Your task to perform on an android device: install app "Move to iOS" Image 0: 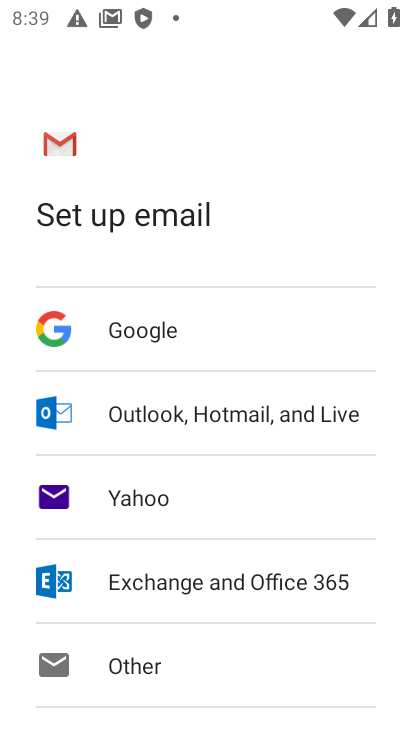
Step 0: press home button
Your task to perform on an android device: install app "Move to iOS" Image 1: 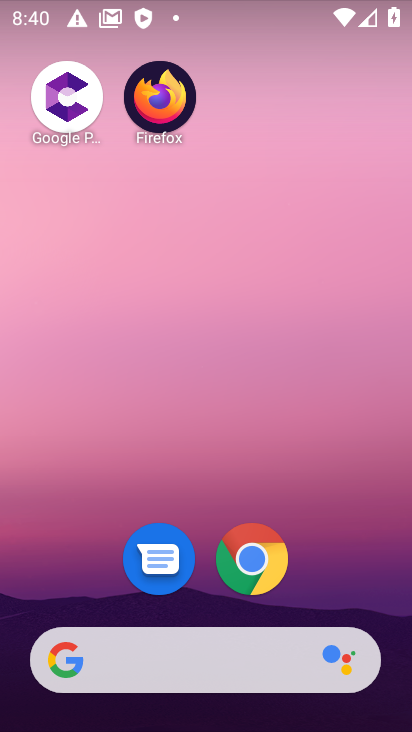
Step 1: drag from (330, 609) to (304, 4)
Your task to perform on an android device: install app "Move to iOS" Image 2: 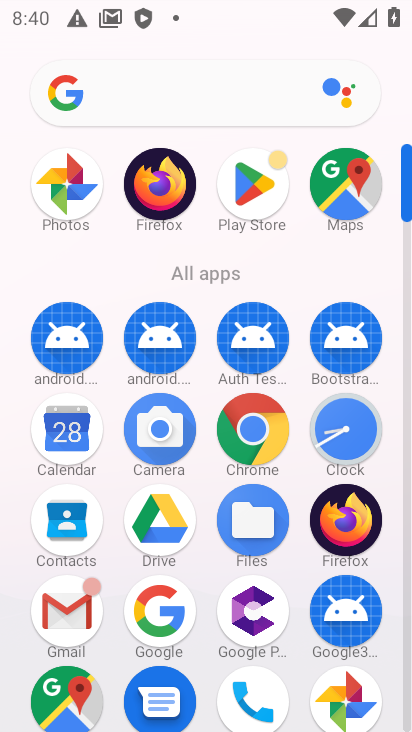
Step 2: click (257, 184)
Your task to perform on an android device: install app "Move to iOS" Image 3: 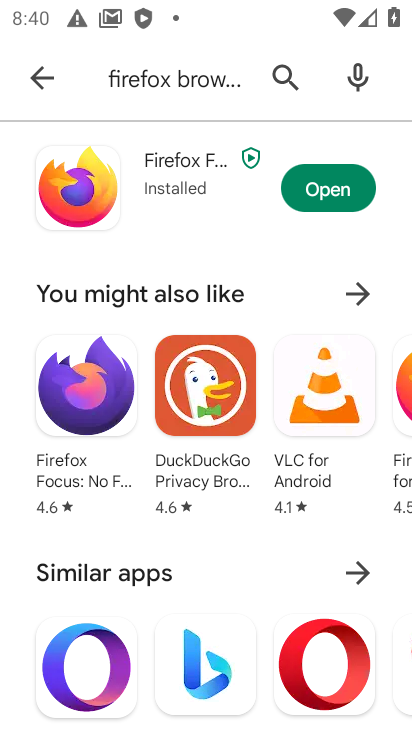
Step 3: click (289, 84)
Your task to perform on an android device: install app "Move to iOS" Image 4: 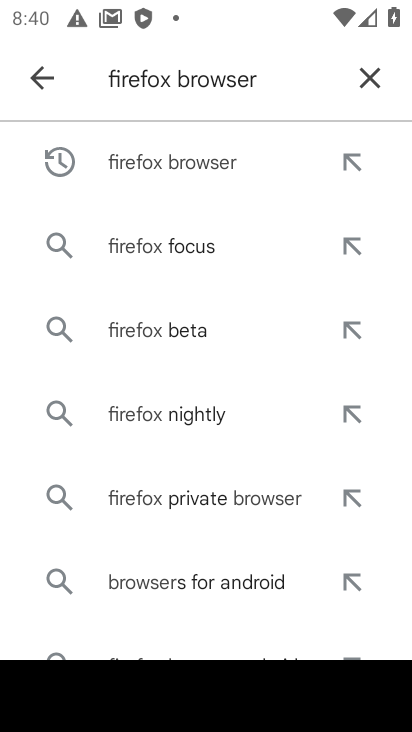
Step 4: click (367, 84)
Your task to perform on an android device: install app "Move to iOS" Image 5: 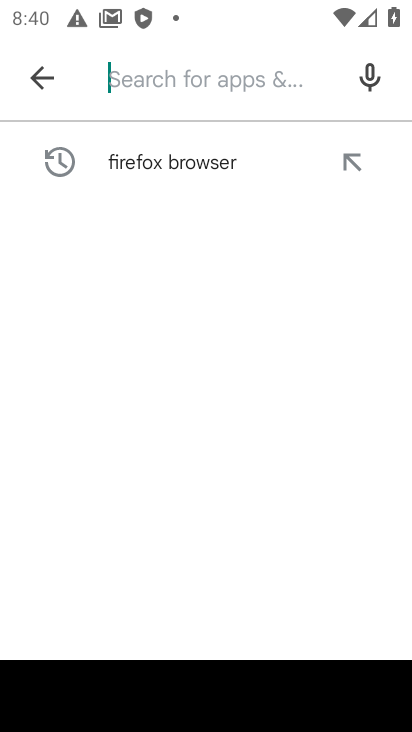
Step 5: click (141, 76)
Your task to perform on an android device: install app "Move to iOS" Image 6: 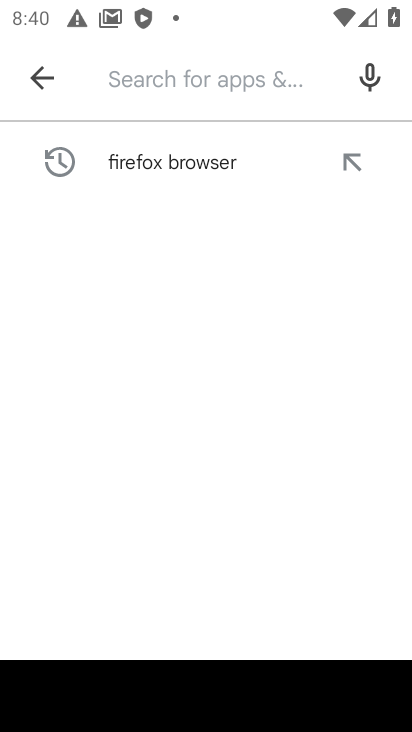
Step 6: type "Move to iOS"
Your task to perform on an android device: install app "Move to iOS" Image 7: 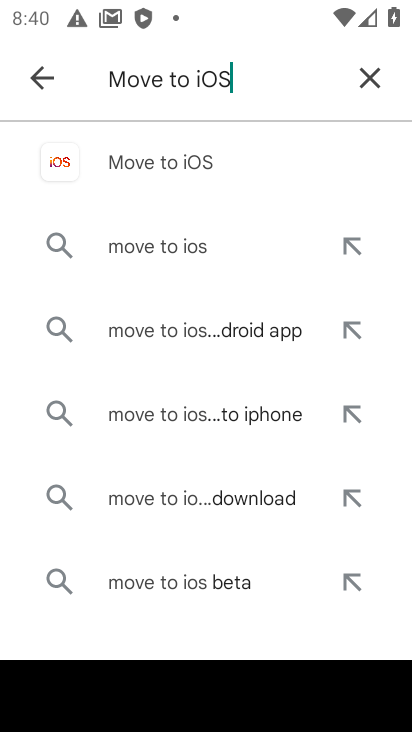
Step 7: click (164, 164)
Your task to perform on an android device: install app "Move to iOS" Image 8: 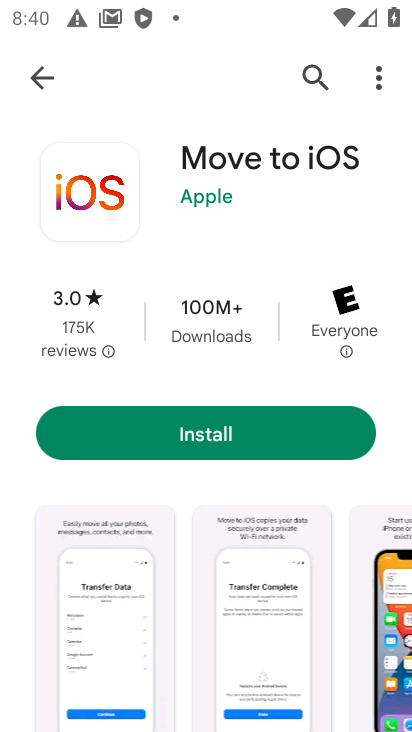
Step 8: click (210, 446)
Your task to perform on an android device: install app "Move to iOS" Image 9: 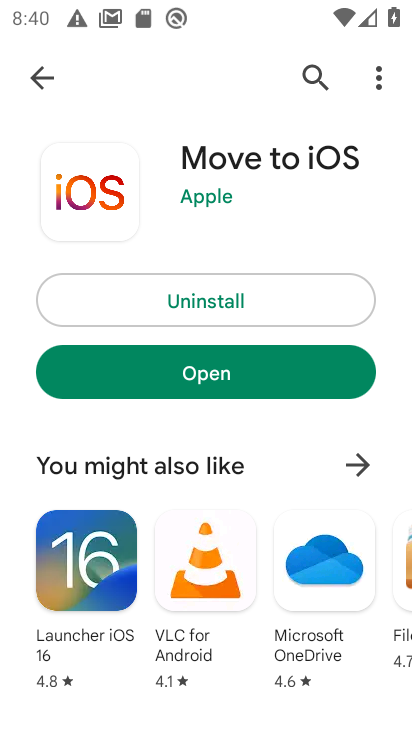
Step 9: task complete